Your task to perform on an android device: See recent photos Image 0: 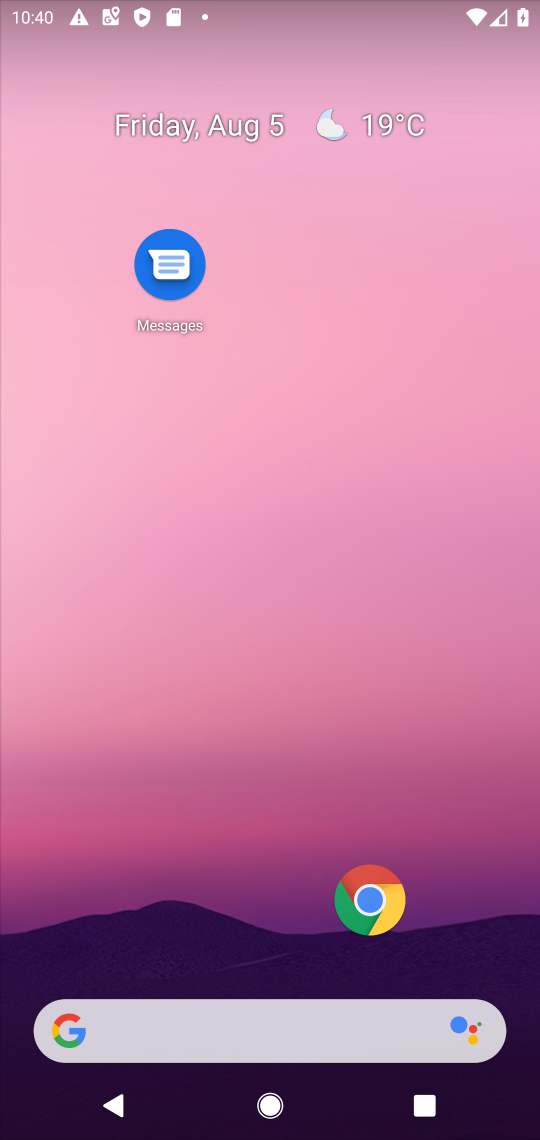
Step 0: drag from (262, 878) to (277, 315)
Your task to perform on an android device: See recent photos Image 1: 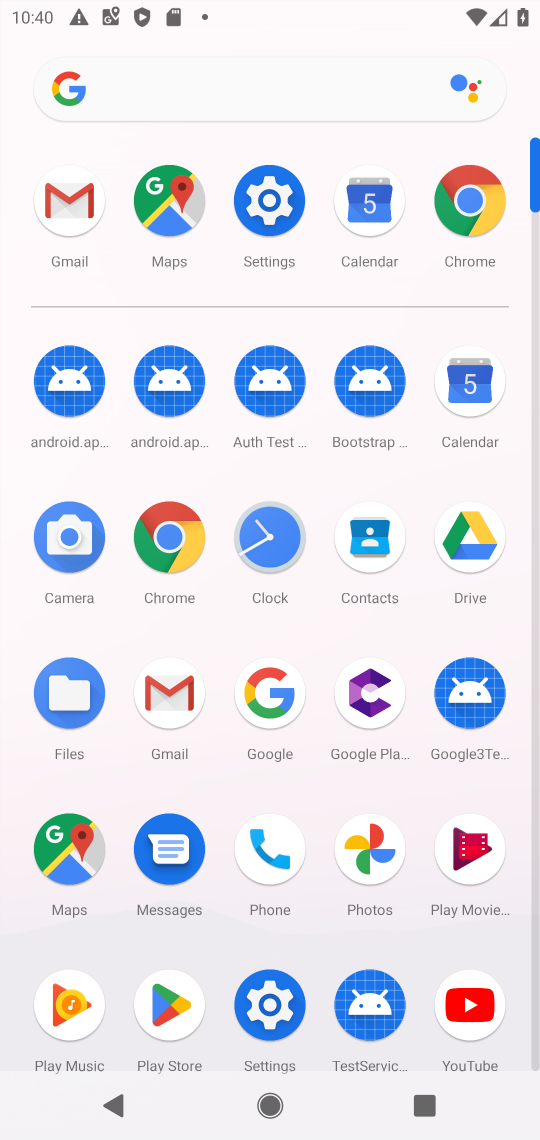
Step 1: click (379, 868)
Your task to perform on an android device: See recent photos Image 2: 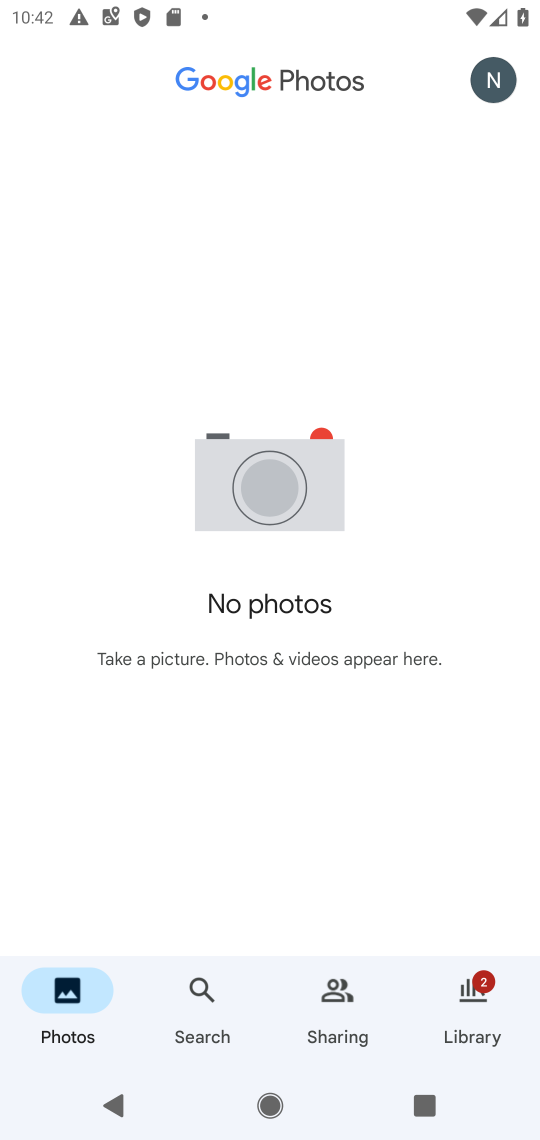
Step 2: task complete